Your task to perform on an android device: Open CNN.com Image 0: 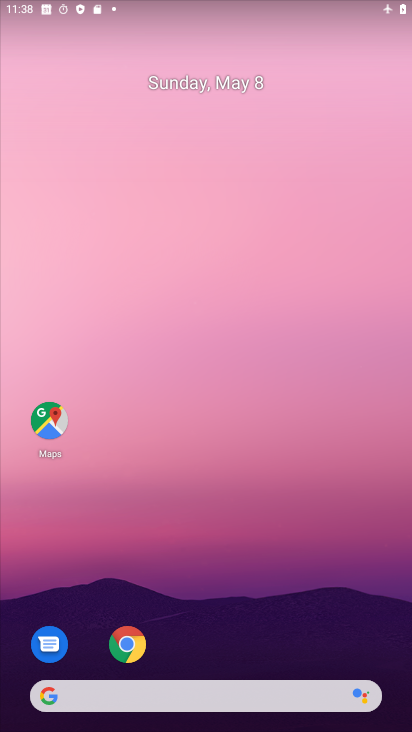
Step 0: drag from (182, 620) to (188, 246)
Your task to perform on an android device: Open CNN.com Image 1: 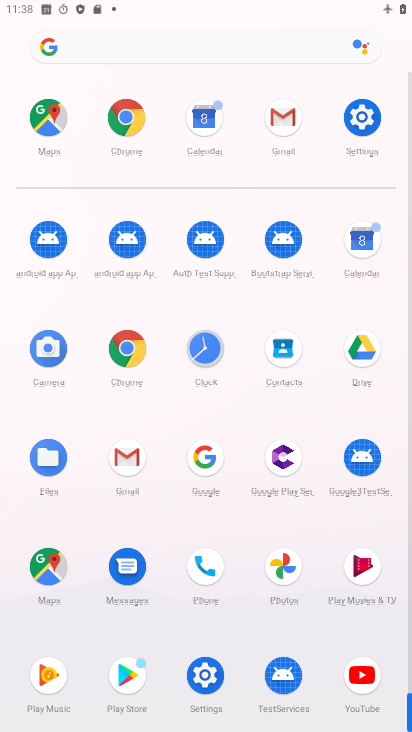
Step 1: click (194, 50)
Your task to perform on an android device: Open CNN.com Image 2: 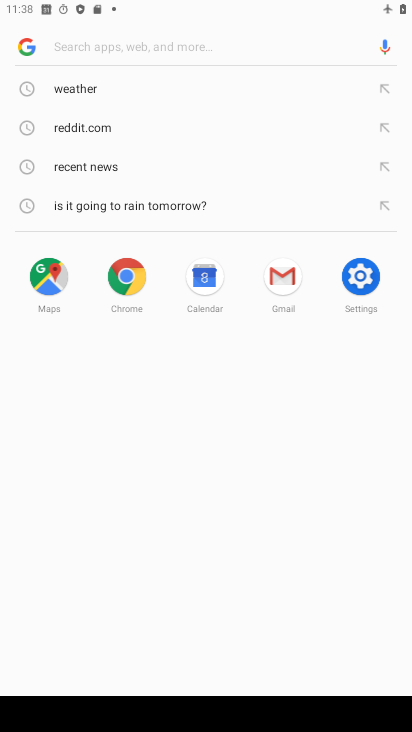
Step 2: type "cnn"
Your task to perform on an android device: Open CNN.com Image 3: 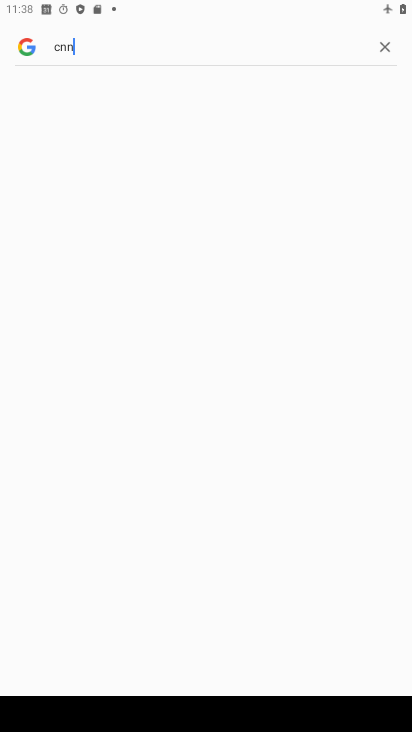
Step 3: task complete